Your task to perform on an android device: Is it going to rain tomorrow? Image 0: 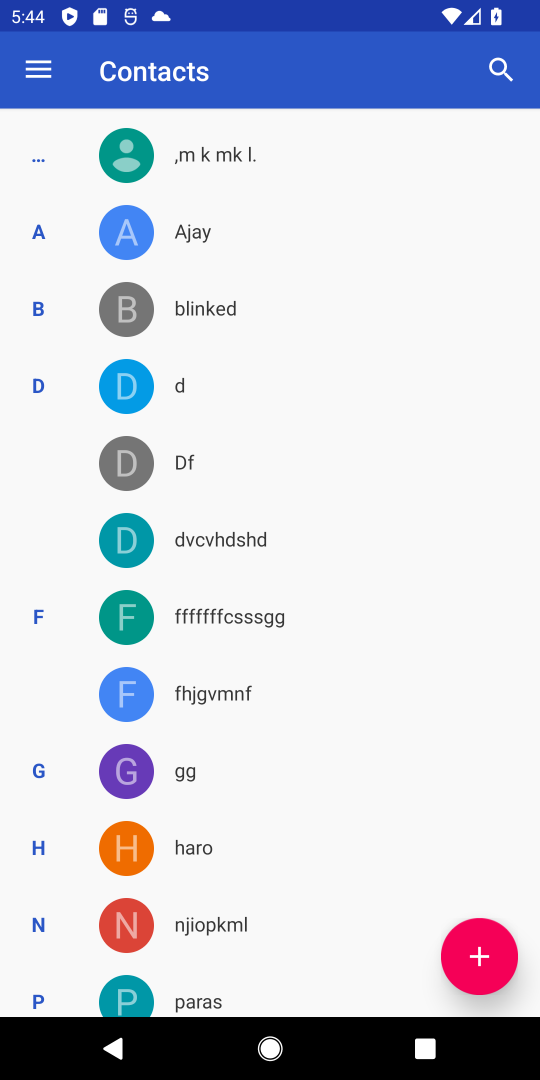
Step 0: press back button
Your task to perform on an android device: Is it going to rain tomorrow? Image 1: 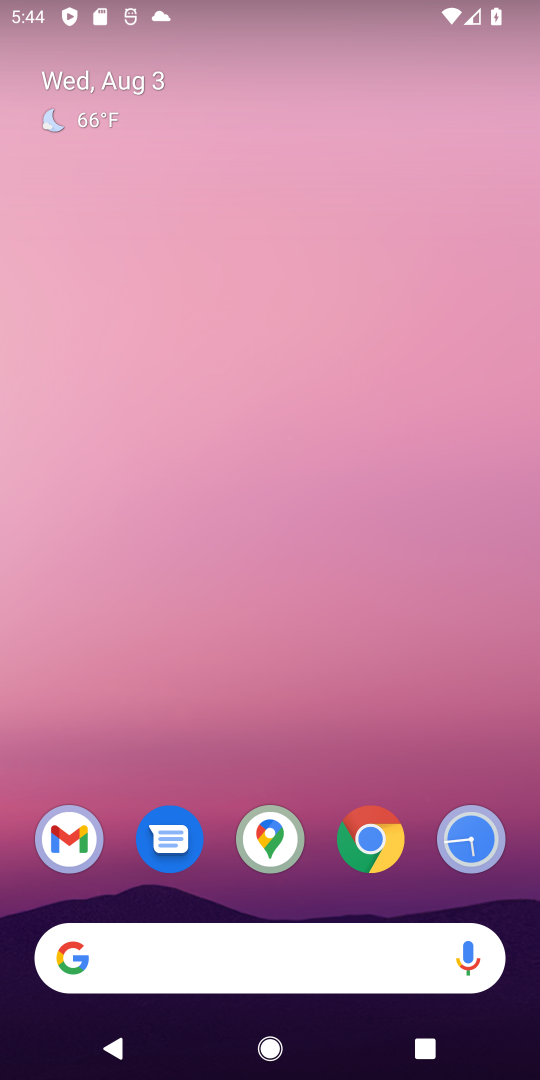
Step 1: drag from (318, 497) to (330, 28)
Your task to perform on an android device: Is it going to rain tomorrow? Image 2: 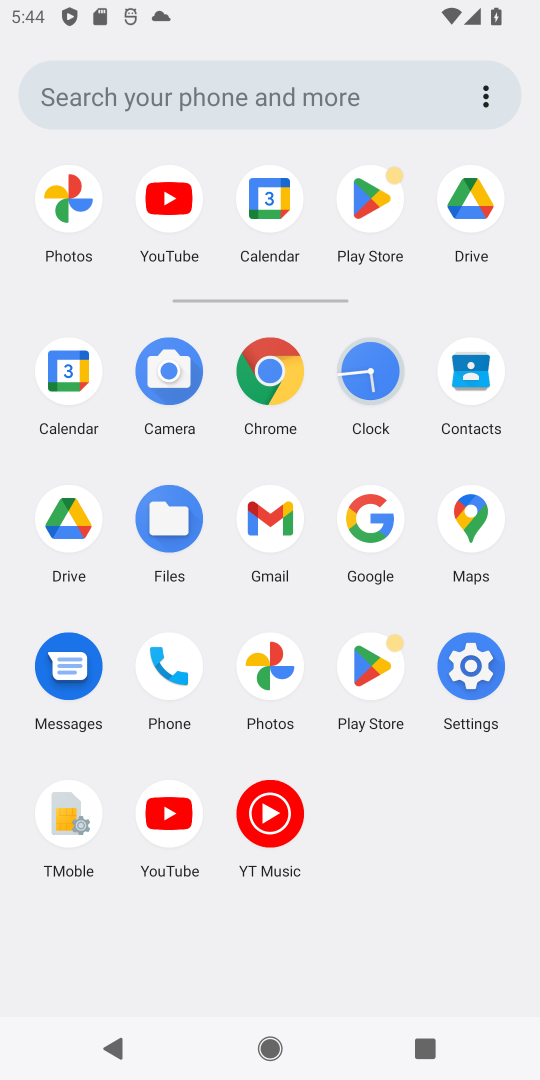
Step 2: click (369, 513)
Your task to perform on an android device: Is it going to rain tomorrow? Image 3: 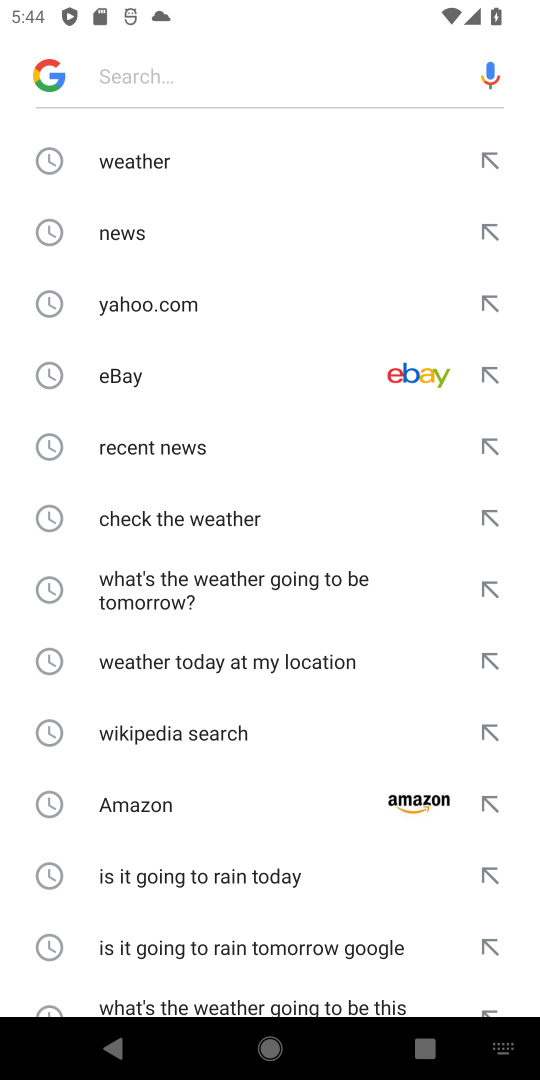
Step 3: click (140, 157)
Your task to perform on an android device: Is it going to rain tomorrow? Image 4: 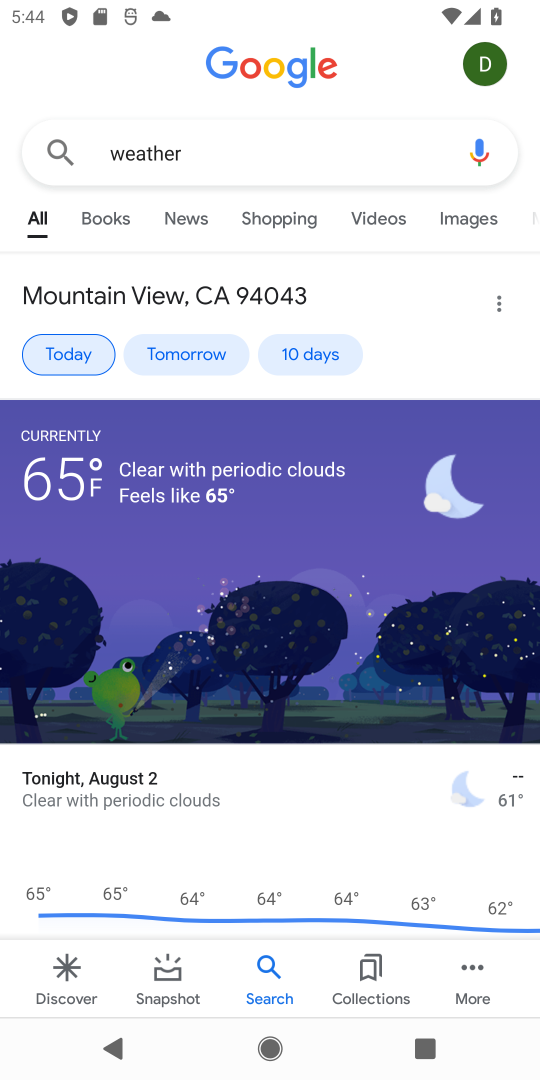
Step 4: click (164, 354)
Your task to perform on an android device: Is it going to rain tomorrow? Image 5: 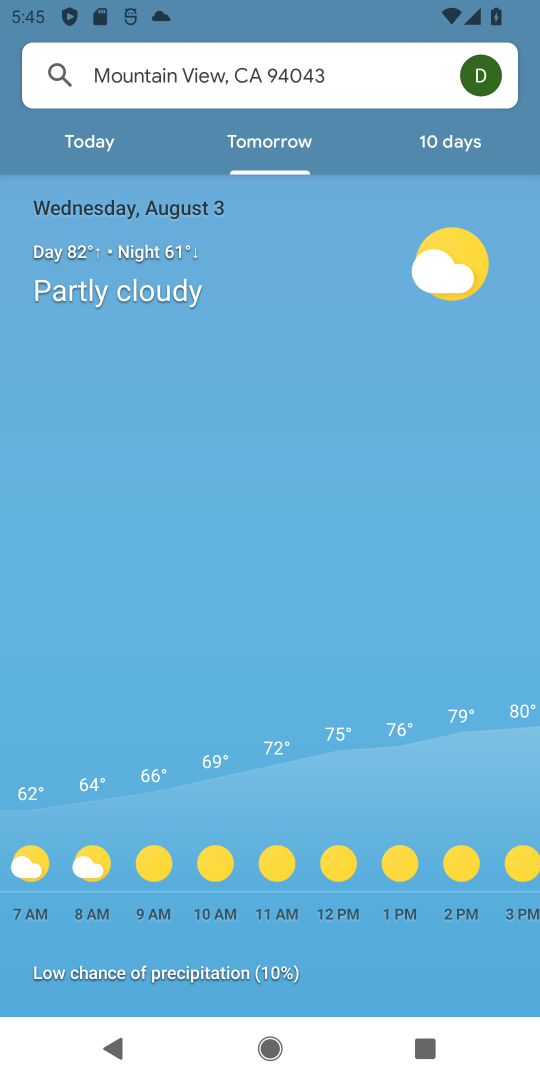
Step 5: task complete